Your task to perform on an android device: turn off sleep mode Image 0: 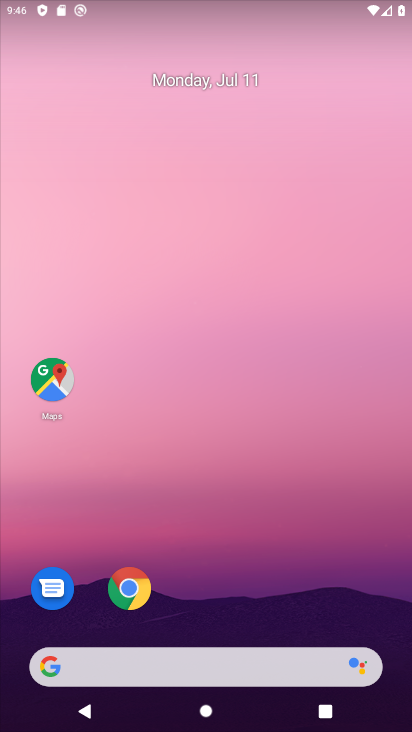
Step 0: drag from (179, 519) to (213, 4)
Your task to perform on an android device: turn off sleep mode Image 1: 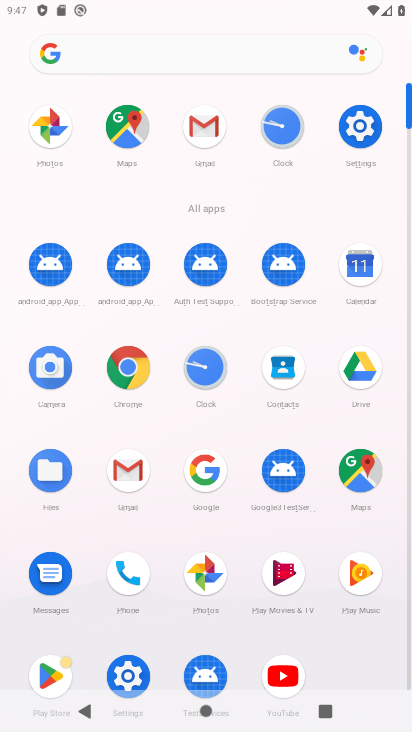
Step 1: click (365, 142)
Your task to perform on an android device: turn off sleep mode Image 2: 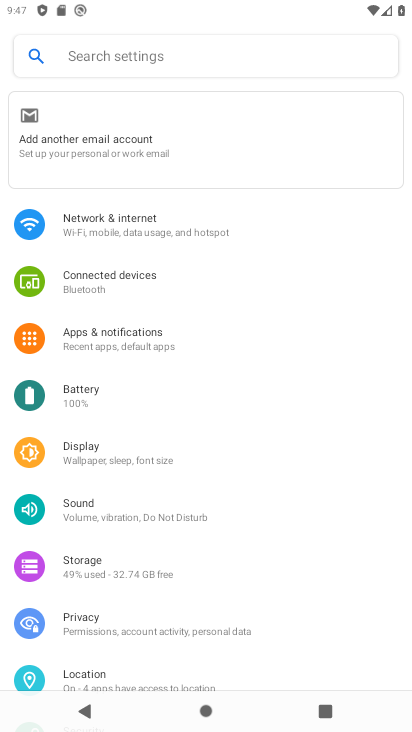
Step 2: click (151, 51)
Your task to perform on an android device: turn off sleep mode Image 3: 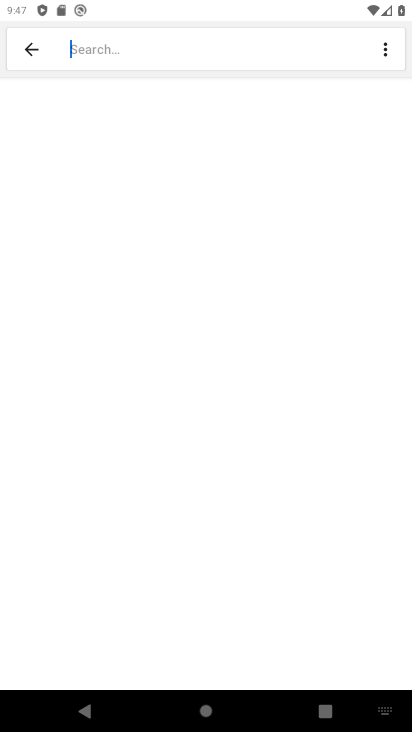
Step 3: type "sleep mode"
Your task to perform on an android device: turn off sleep mode Image 4: 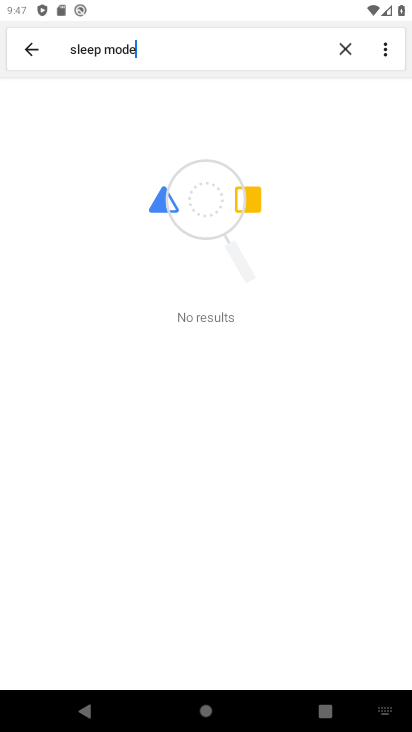
Step 4: task complete